Your task to perform on an android device: Open the calendar and show me this week's events? Image 0: 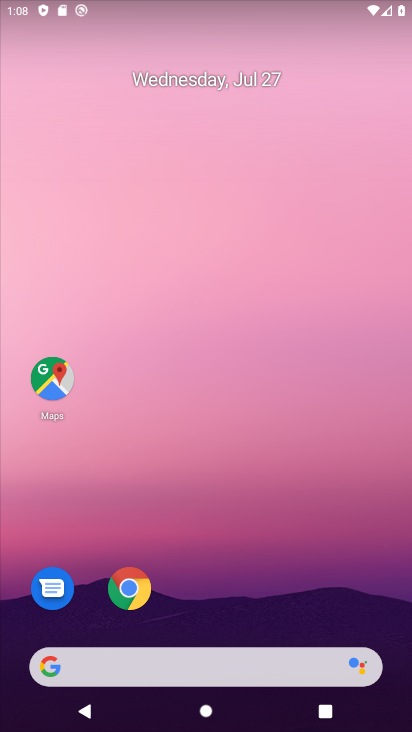
Step 0: drag from (214, 552) to (219, 203)
Your task to perform on an android device: Open the calendar and show me this week's events? Image 1: 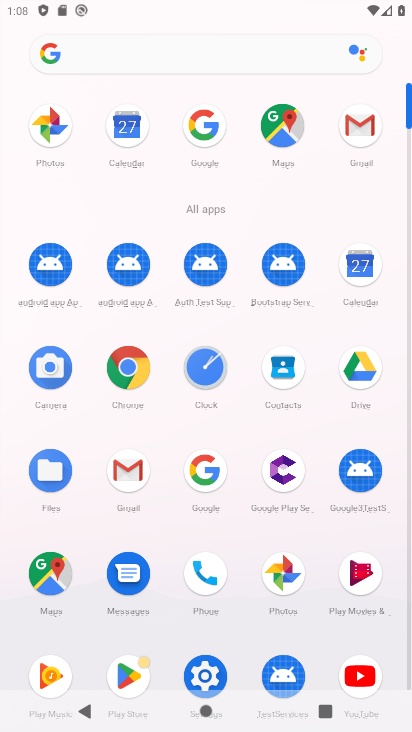
Step 1: click (353, 281)
Your task to perform on an android device: Open the calendar and show me this week's events? Image 2: 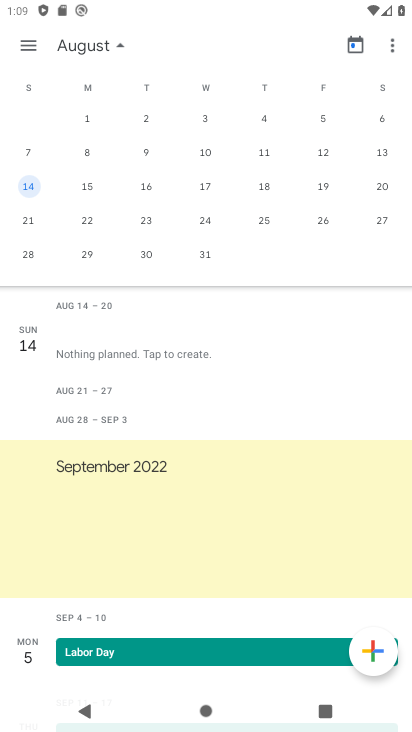
Step 2: click (381, 177)
Your task to perform on an android device: Open the calendar and show me this week's events? Image 3: 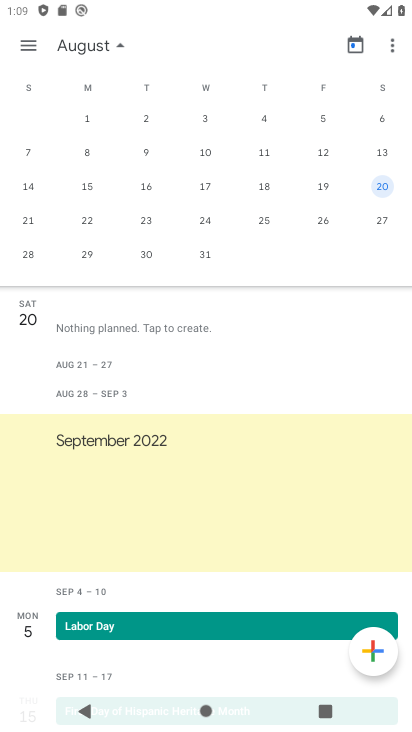
Step 3: drag from (61, 165) to (386, 179)
Your task to perform on an android device: Open the calendar and show me this week's events? Image 4: 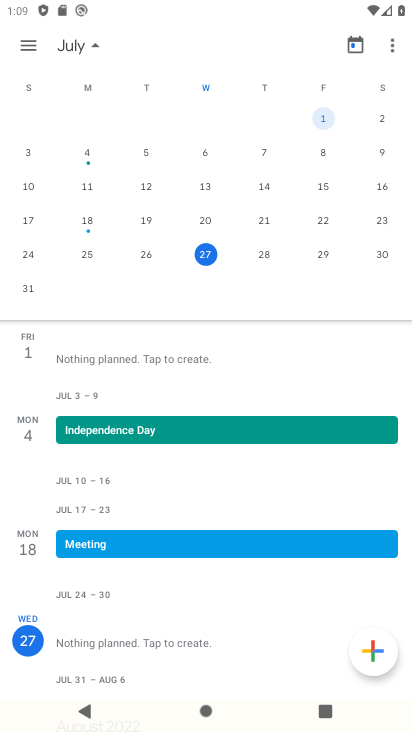
Step 4: click (372, 255)
Your task to perform on an android device: Open the calendar and show me this week's events? Image 5: 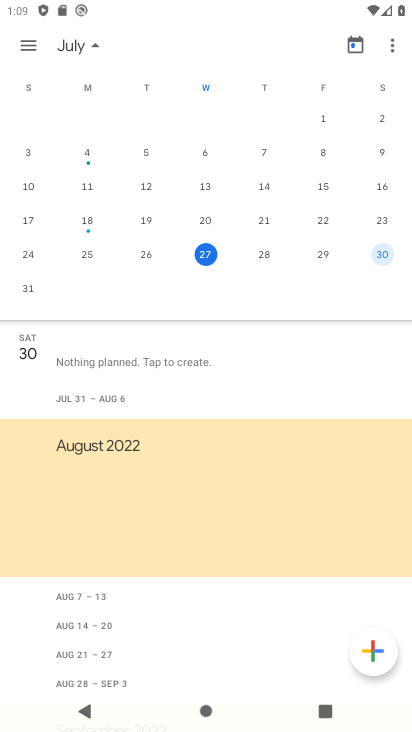
Step 5: task complete